Your task to perform on an android device: add a contact in the contacts app Image 0: 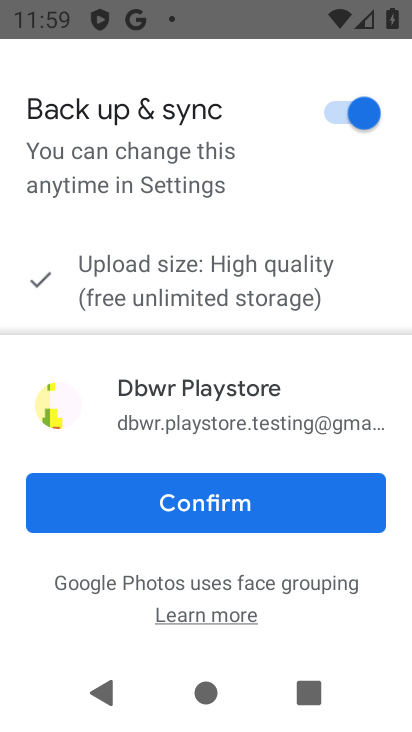
Step 0: press home button
Your task to perform on an android device: add a contact in the contacts app Image 1: 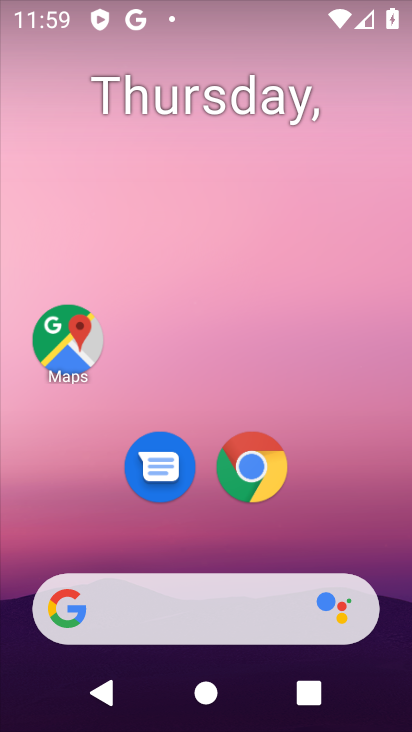
Step 1: drag from (330, 519) to (223, 61)
Your task to perform on an android device: add a contact in the contacts app Image 2: 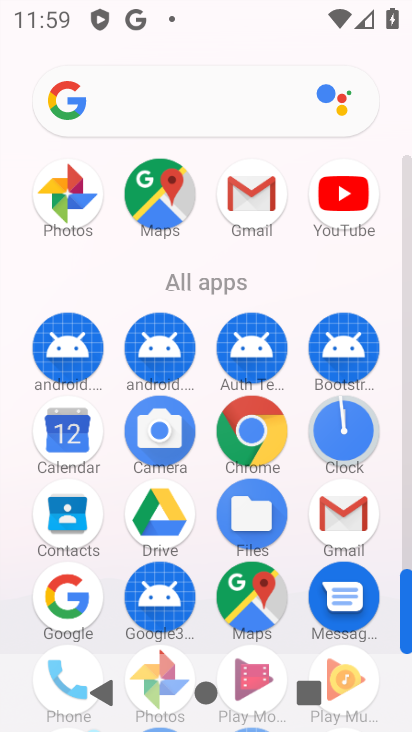
Step 2: click (67, 517)
Your task to perform on an android device: add a contact in the contacts app Image 3: 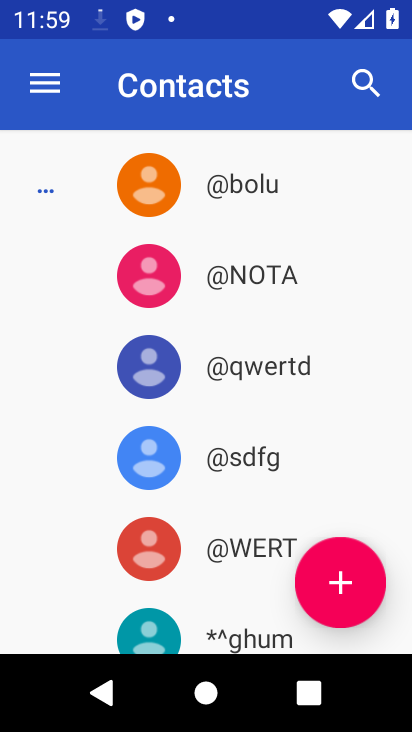
Step 3: click (343, 584)
Your task to perform on an android device: add a contact in the contacts app Image 4: 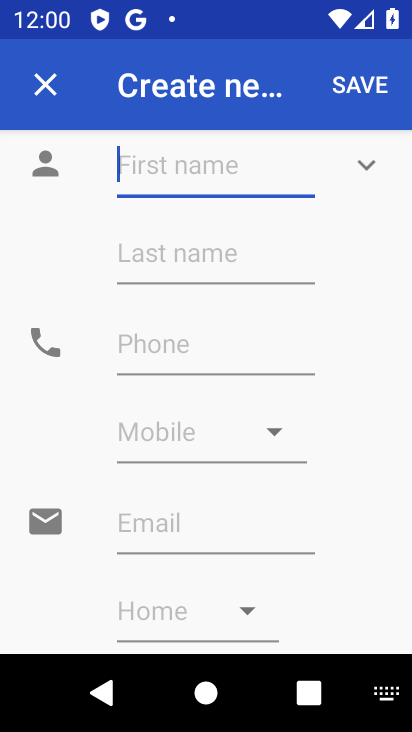
Step 4: type "Satyendra Singh"
Your task to perform on an android device: add a contact in the contacts app Image 5: 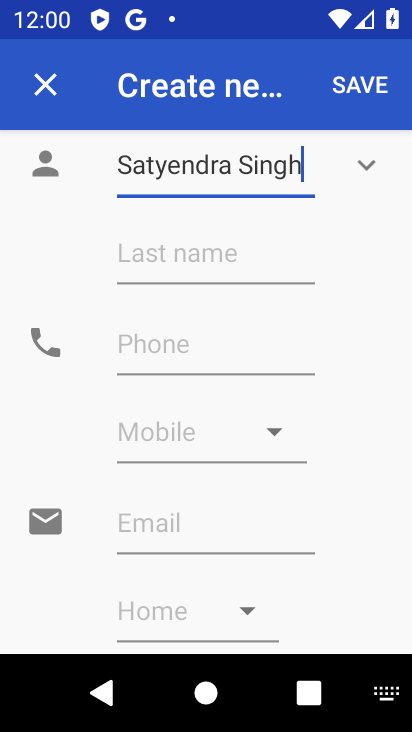
Step 5: click (253, 264)
Your task to perform on an android device: add a contact in the contacts app Image 6: 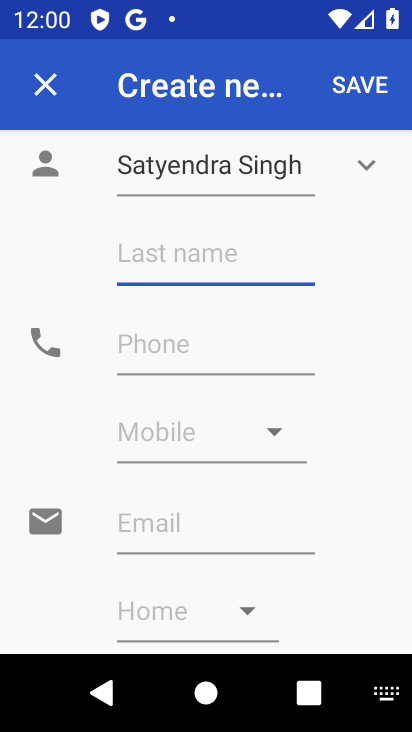
Step 6: type "Tomar"
Your task to perform on an android device: add a contact in the contacts app Image 7: 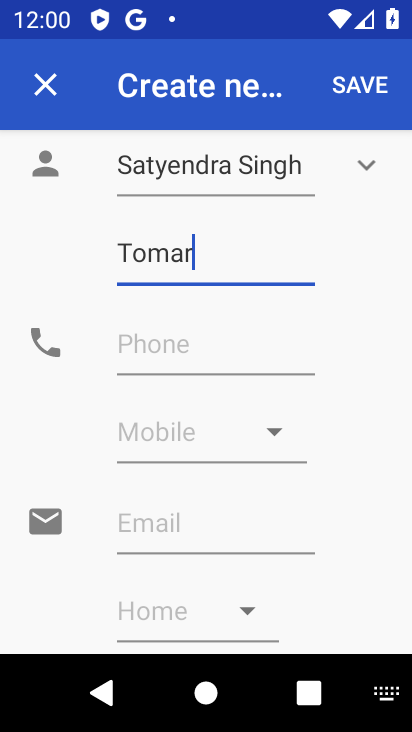
Step 7: click (242, 353)
Your task to perform on an android device: add a contact in the contacts app Image 8: 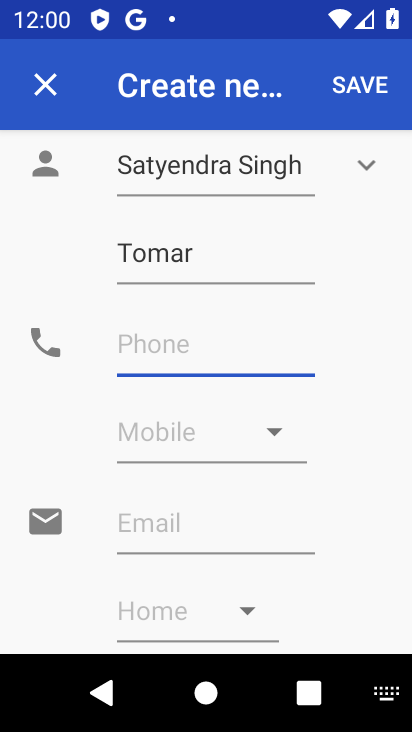
Step 8: type "09987123456"
Your task to perform on an android device: add a contact in the contacts app Image 9: 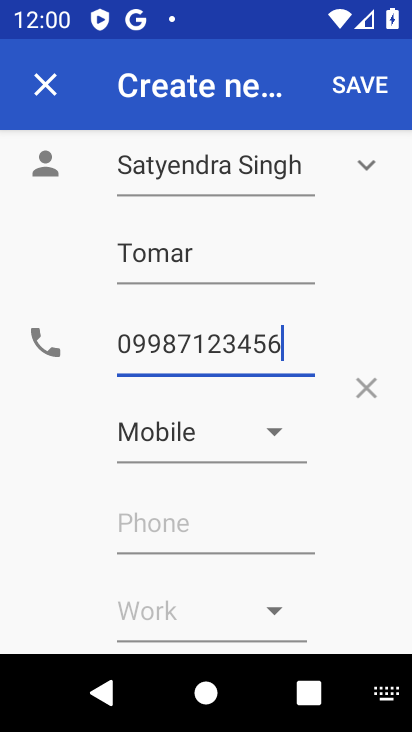
Step 9: click (381, 79)
Your task to perform on an android device: add a contact in the contacts app Image 10: 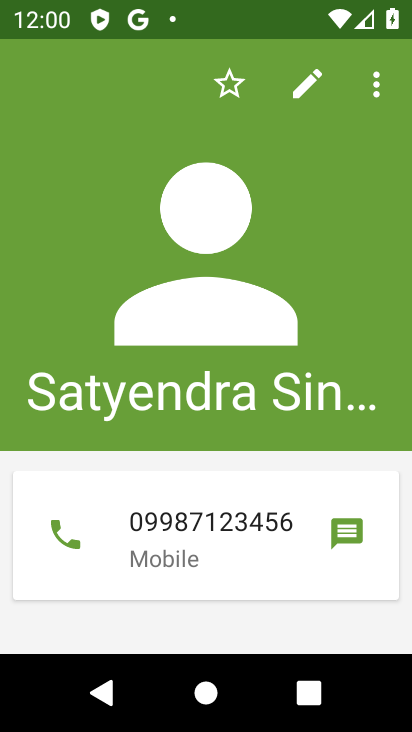
Step 10: task complete